Your task to perform on an android device: turn off location history Image 0: 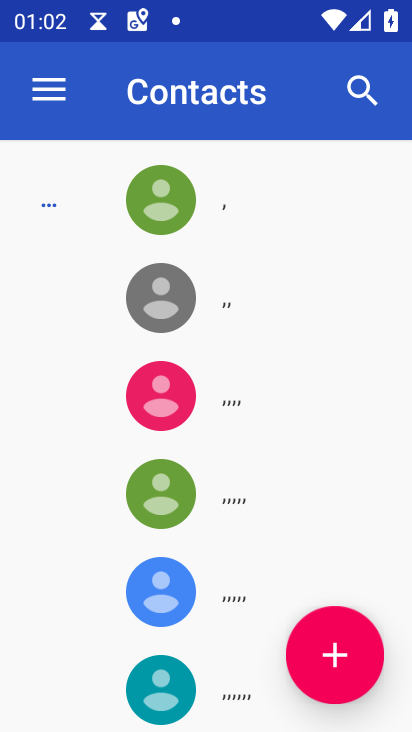
Step 0: press home button
Your task to perform on an android device: turn off location history Image 1: 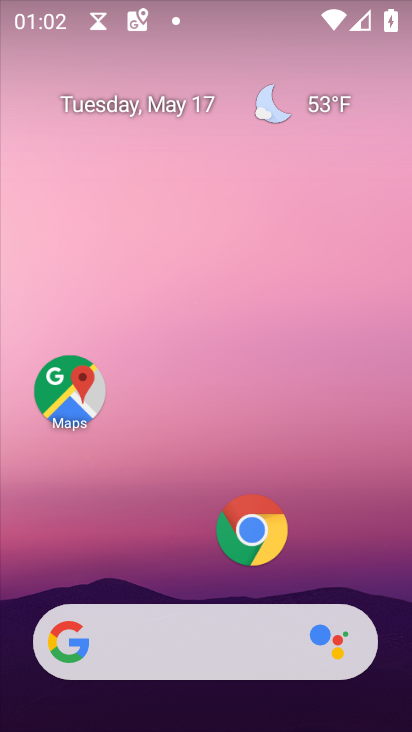
Step 1: drag from (313, 561) to (280, 61)
Your task to perform on an android device: turn off location history Image 2: 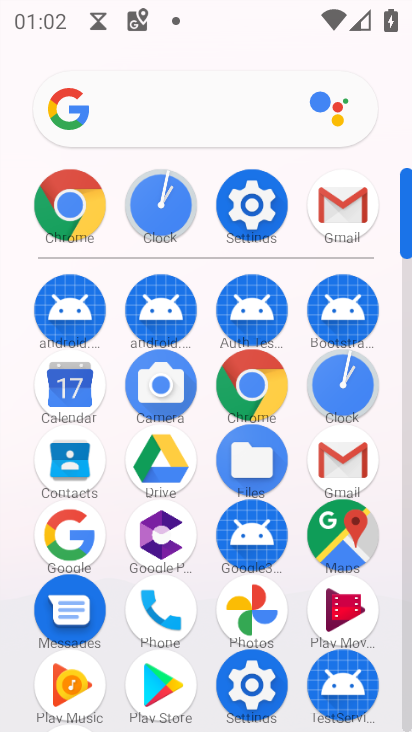
Step 2: click (267, 198)
Your task to perform on an android device: turn off location history Image 3: 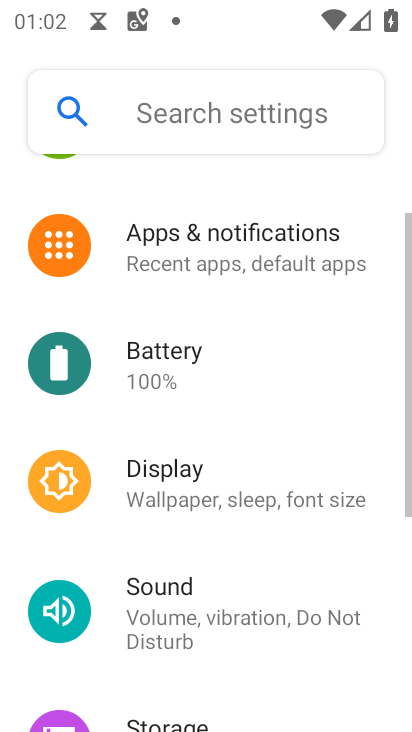
Step 3: drag from (274, 634) to (296, 257)
Your task to perform on an android device: turn off location history Image 4: 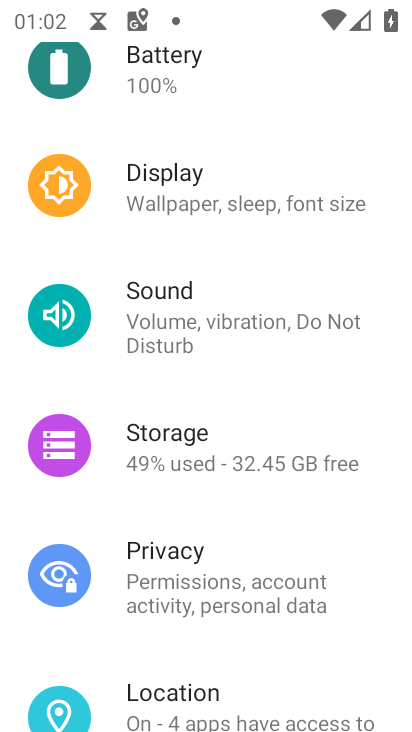
Step 4: click (247, 699)
Your task to perform on an android device: turn off location history Image 5: 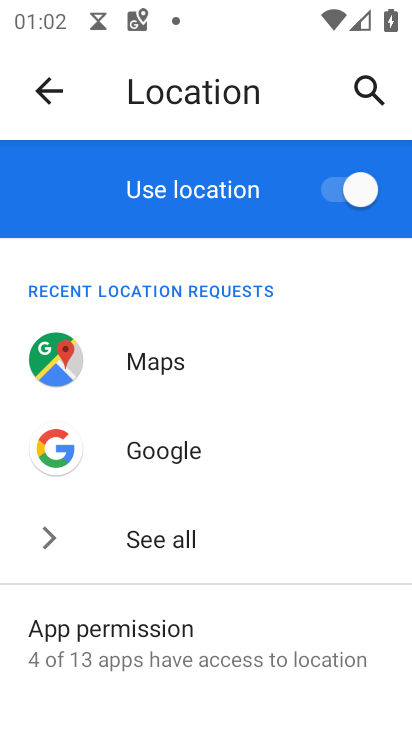
Step 5: drag from (259, 633) to (272, 188)
Your task to perform on an android device: turn off location history Image 6: 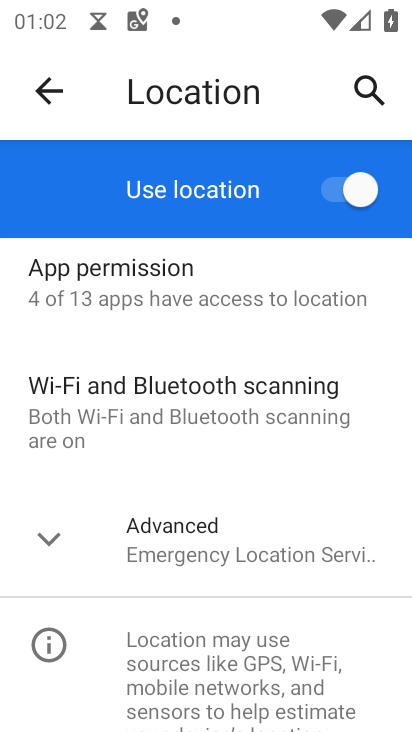
Step 6: click (215, 557)
Your task to perform on an android device: turn off location history Image 7: 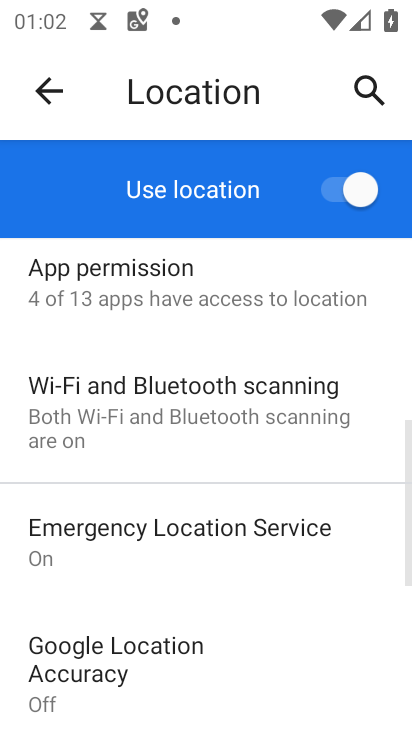
Step 7: drag from (250, 668) to (257, 368)
Your task to perform on an android device: turn off location history Image 8: 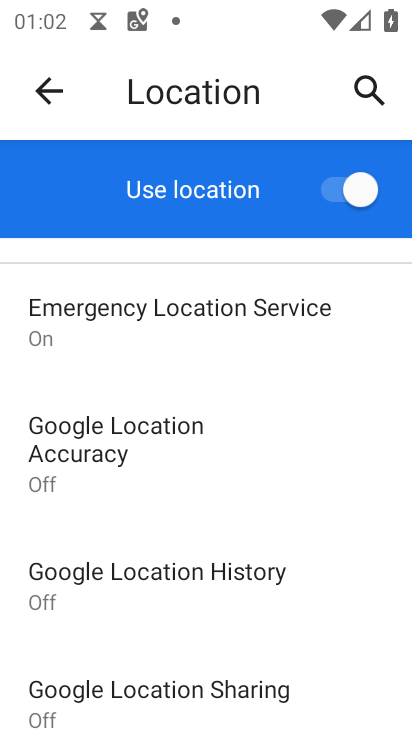
Step 8: click (235, 586)
Your task to perform on an android device: turn off location history Image 9: 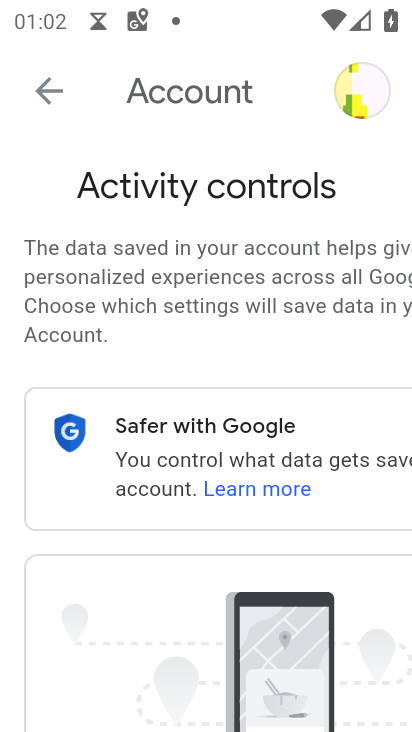
Step 9: task complete